Your task to perform on an android device: Open Google Image 0: 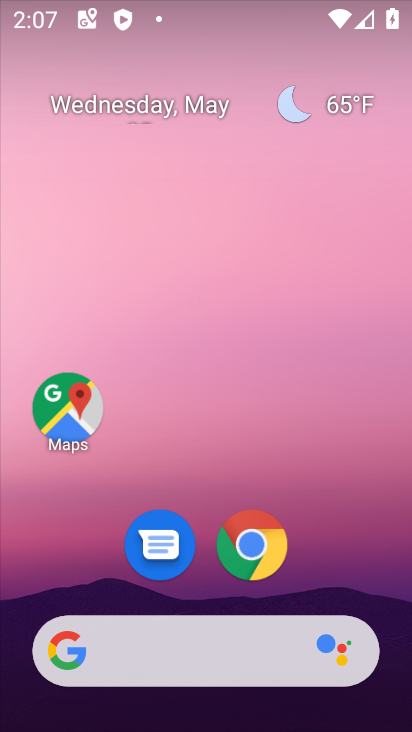
Step 0: drag from (345, 551) to (251, 82)
Your task to perform on an android device: Open Google Image 1: 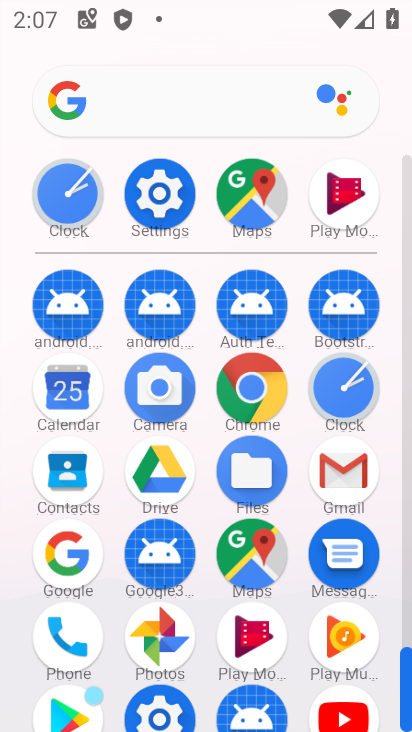
Step 1: click (73, 554)
Your task to perform on an android device: Open Google Image 2: 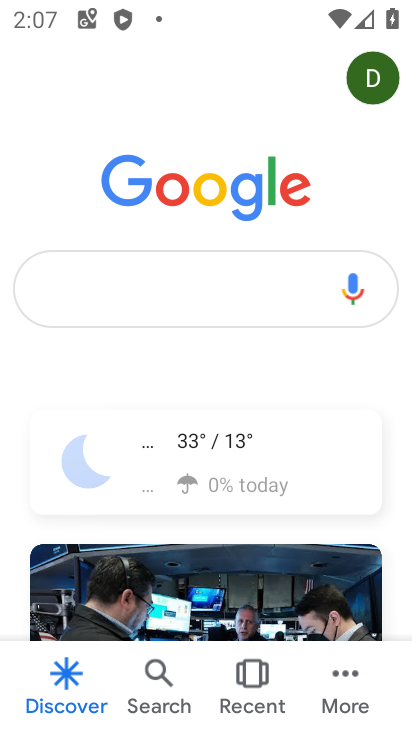
Step 2: task complete